Your task to perform on an android device: open a bookmark in the chrome app Image 0: 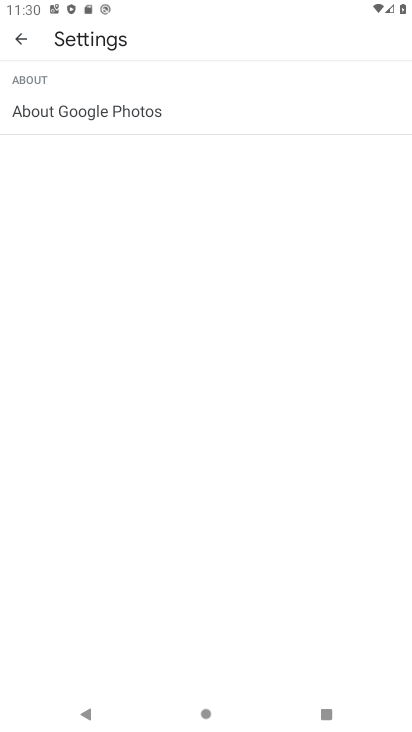
Step 0: press home button
Your task to perform on an android device: open a bookmark in the chrome app Image 1: 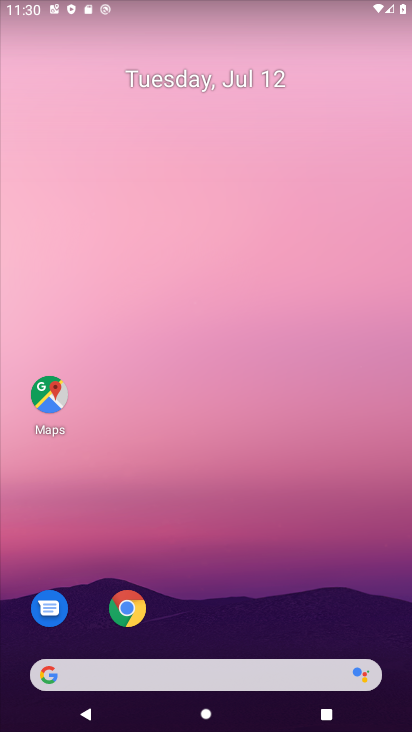
Step 1: click (127, 612)
Your task to perform on an android device: open a bookmark in the chrome app Image 2: 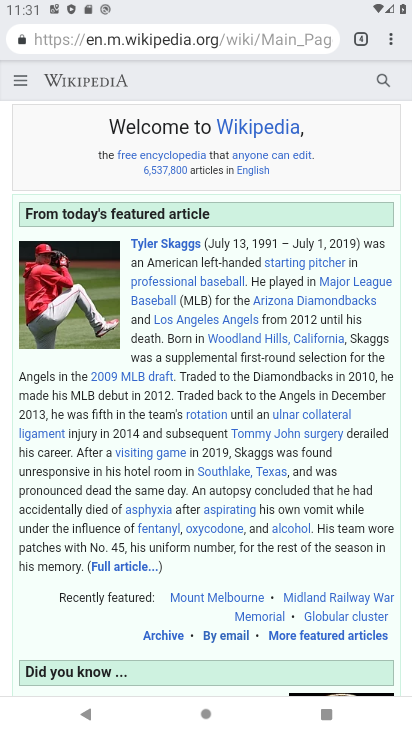
Step 2: click (392, 40)
Your task to perform on an android device: open a bookmark in the chrome app Image 3: 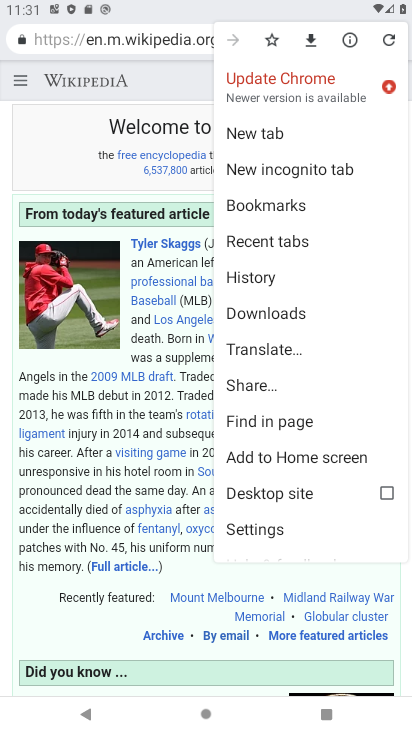
Step 3: click (264, 202)
Your task to perform on an android device: open a bookmark in the chrome app Image 4: 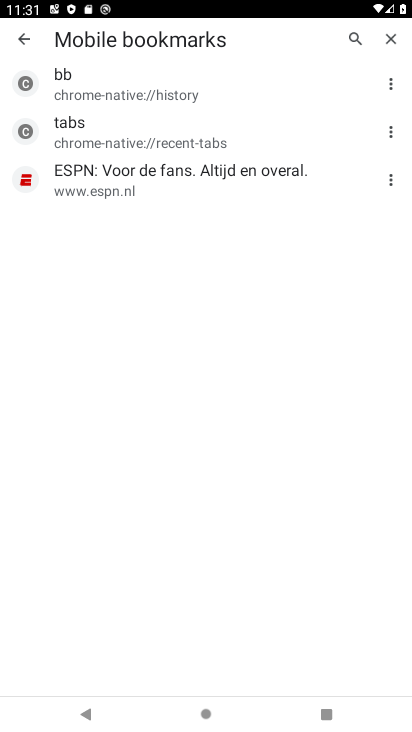
Step 4: click (70, 171)
Your task to perform on an android device: open a bookmark in the chrome app Image 5: 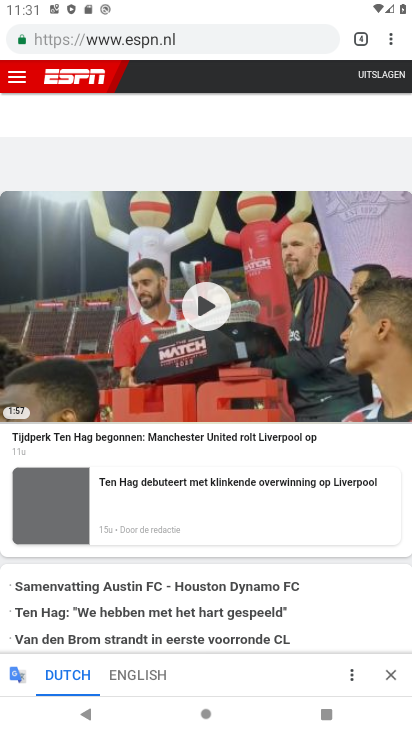
Step 5: task complete